Your task to perform on an android device: Set the phone to "Do not disturb". Image 0: 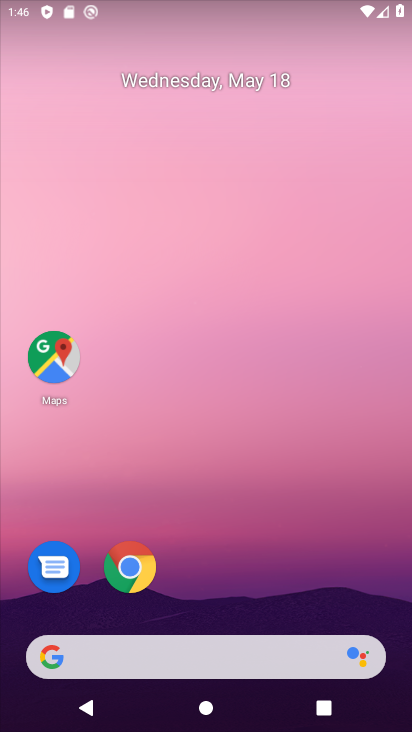
Step 0: drag from (231, 603) to (229, 204)
Your task to perform on an android device: Set the phone to "Do not disturb". Image 1: 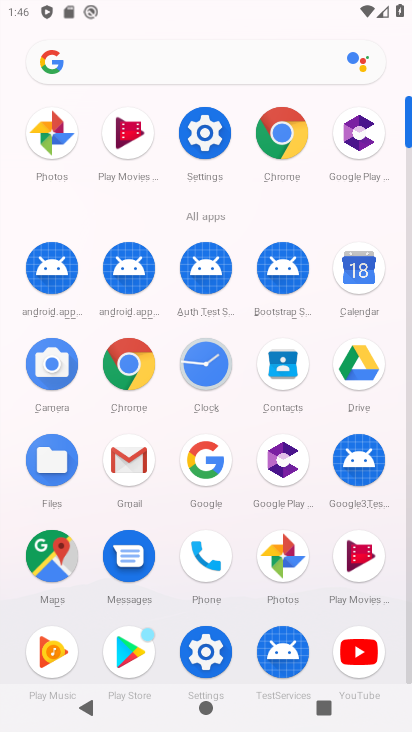
Step 1: click (213, 160)
Your task to perform on an android device: Set the phone to "Do not disturb". Image 2: 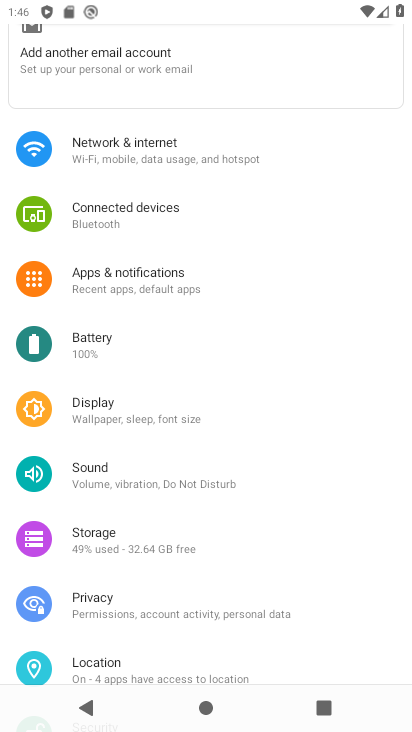
Step 2: click (122, 487)
Your task to perform on an android device: Set the phone to "Do not disturb". Image 3: 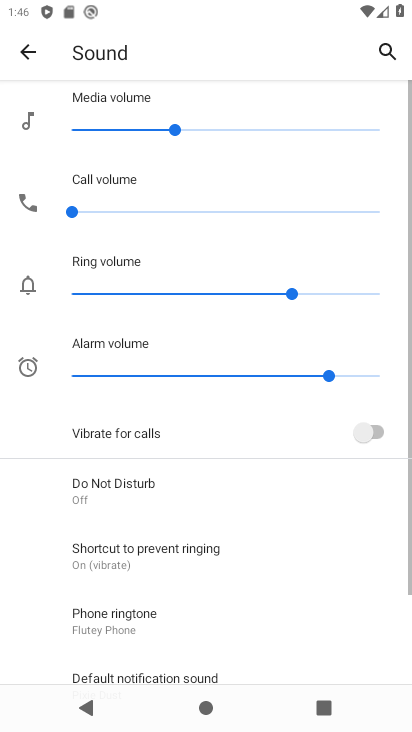
Step 3: click (122, 487)
Your task to perform on an android device: Set the phone to "Do not disturb". Image 4: 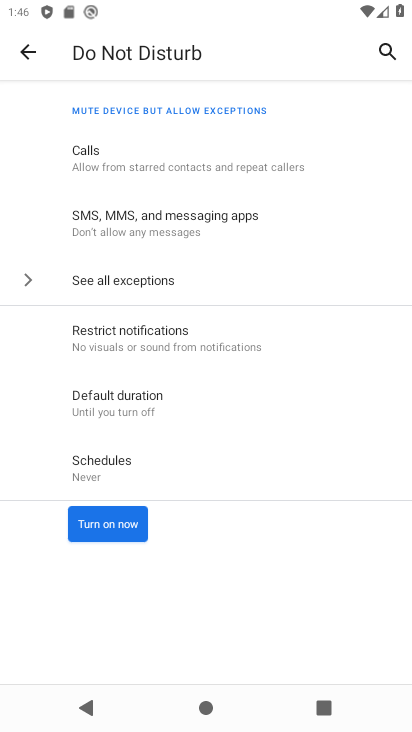
Step 4: click (145, 515)
Your task to perform on an android device: Set the phone to "Do not disturb". Image 5: 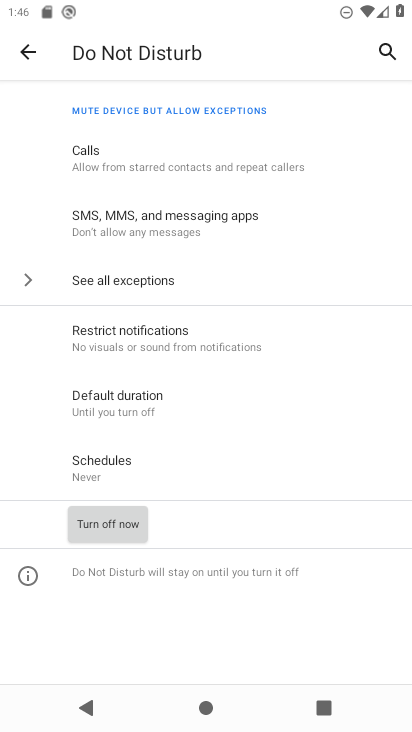
Step 5: task complete